Your task to perform on an android device: see sites visited before in the chrome app Image 0: 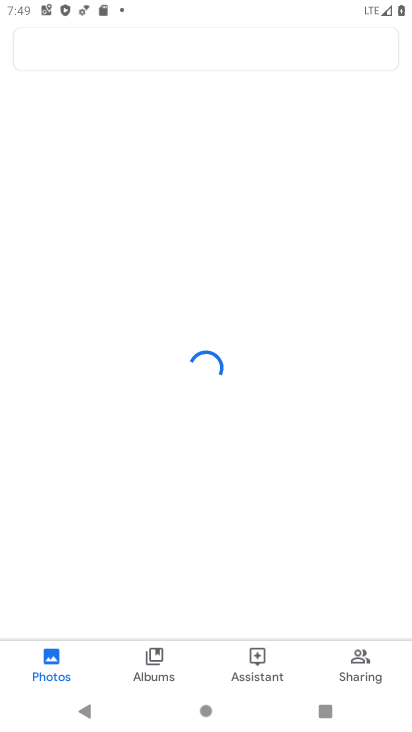
Step 0: press home button
Your task to perform on an android device: see sites visited before in the chrome app Image 1: 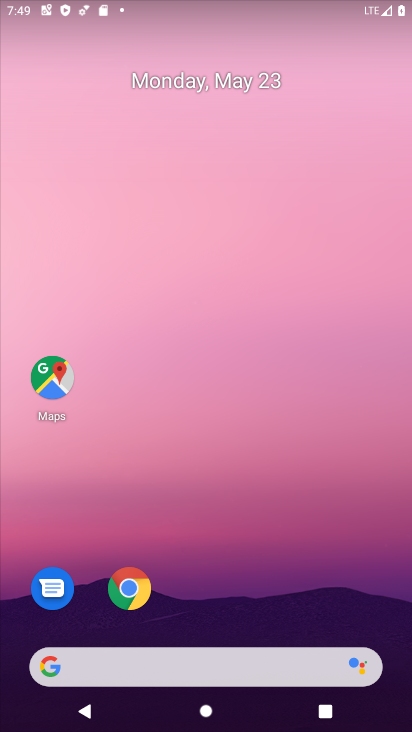
Step 1: click (139, 585)
Your task to perform on an android device: see sites visited before in the chrome app Image 2: 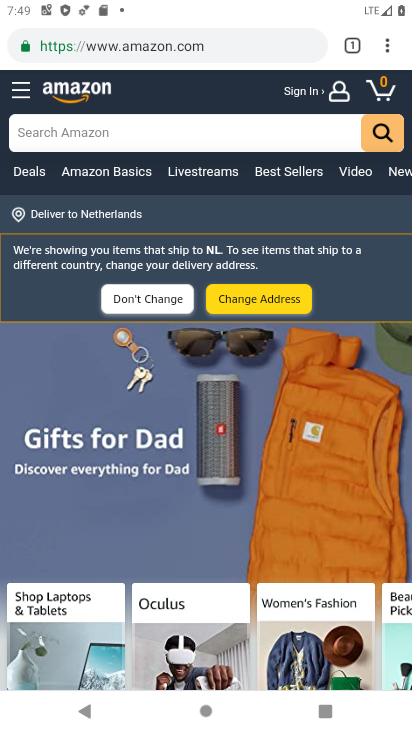
Step 2: click (387, 42)
Your task to perform on an android device: see sites visited before in the chrome app Image 3: 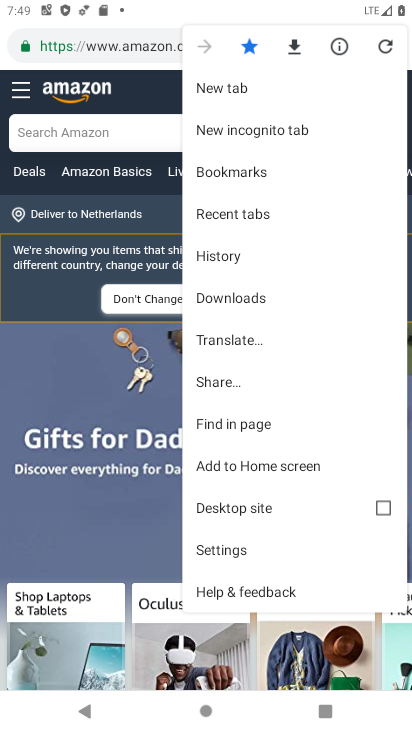
Step 3: click (219, 216)
Your task to perform on an android device: see sites visited before in the chrome app Image 4: 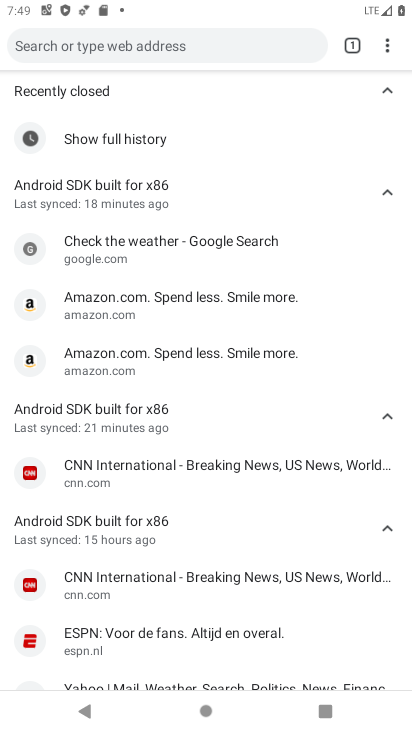
Step 4: task complete